Your task to perform on an android device: delete location history Image 0: 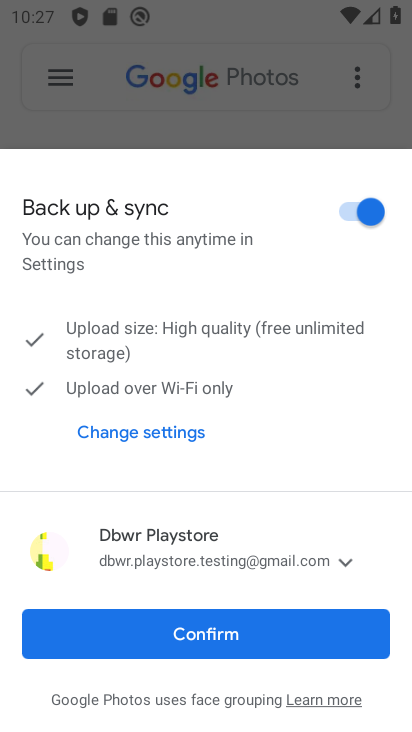
Step 0: press back button
Your task to perform on an android device: delete location history Image 1: 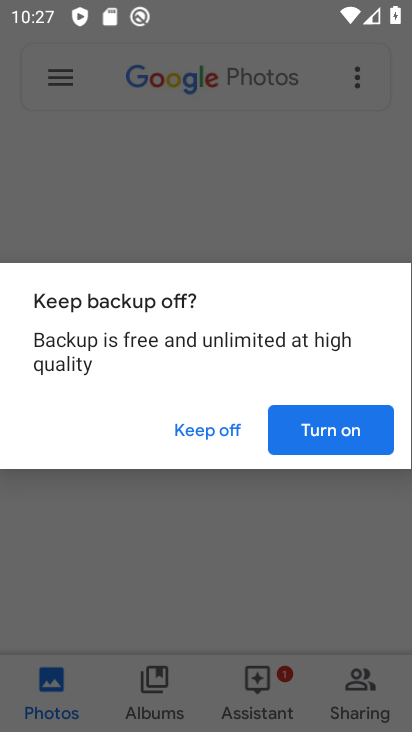
Step 1: press home button
Your task to perform on an android device: delete location history Image 2: 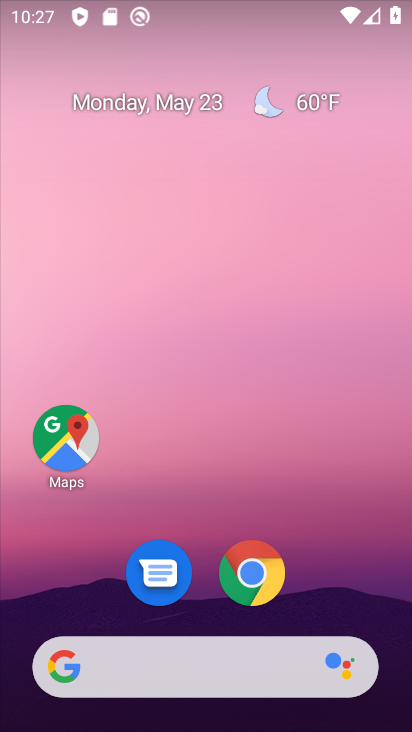
Step 2: drag from (325, 527) to (243, 75)
Your task to perform on an android device: delete location history Image 3: 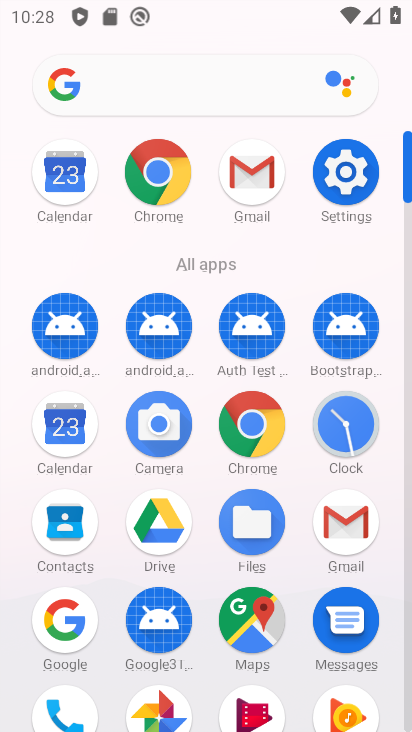
Step 3: drag from (12, 567) to (26, 172)
Your task to perform on an android device: delete location history Image 4: 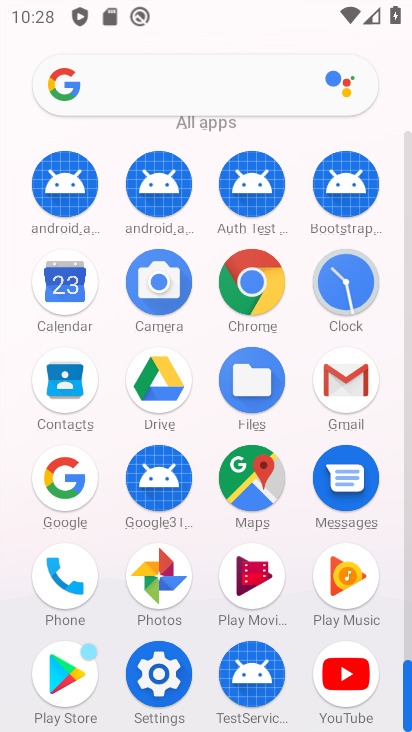
Step 4: drag from (14, 217) to (1, 553)
Your task to perform on an android device: delete location history Image 5: 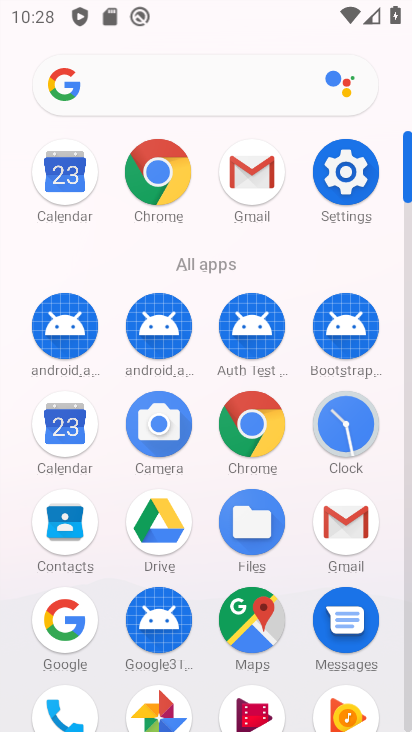
Step 5: drag from (22, 545) to (20, 190)
Your task to perform on an android device: delete location history Image 6: 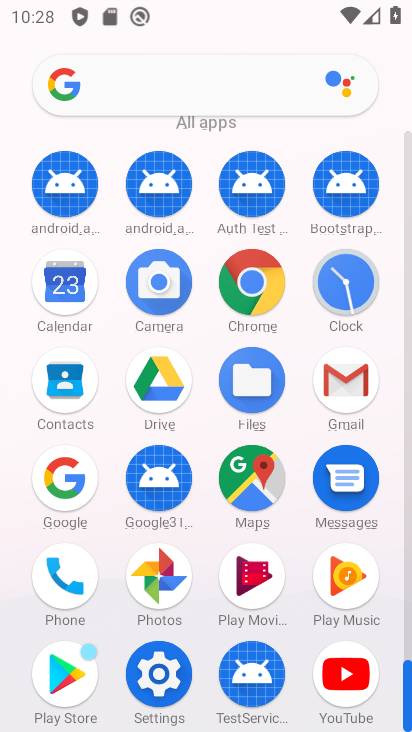
Step 6: click (254, 473)
Your task to perform on an android device: delete location history Image 7: 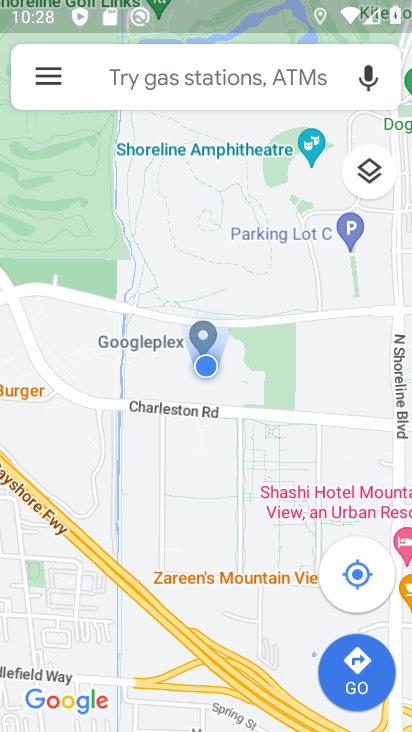
Step 7: click (43, 75)
Your task to perform on an android device: delete location history Image 8: 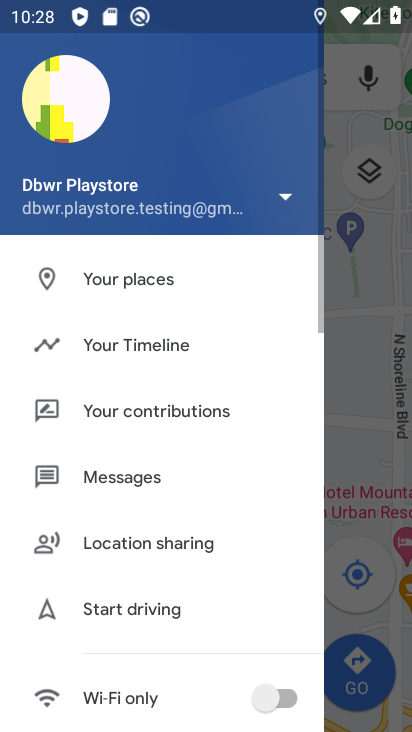
Step 8: drag from (119, 680) to (157, 228)
Your task to perform on an android device: delete location history Image 9: 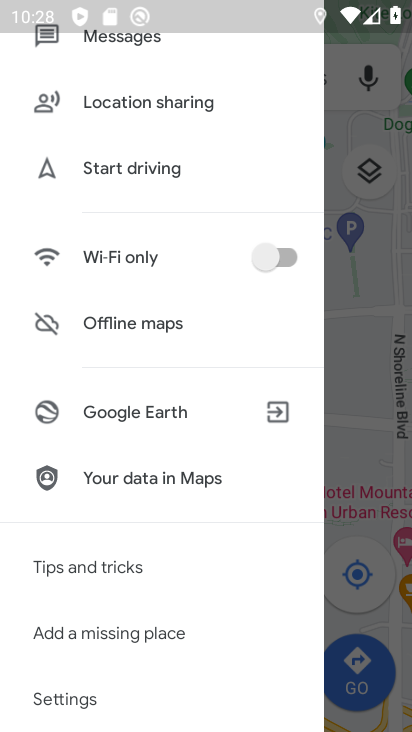
Step 9: click (66, 685)
Your task to perform on an android device: delete location history Image 10: 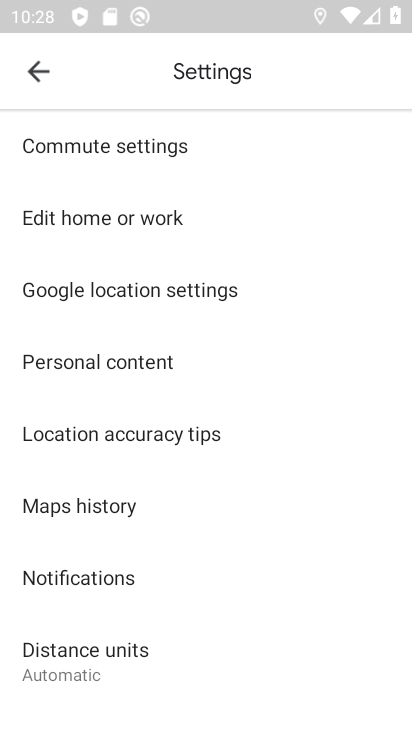
Step 10: click (140, 283)
Your task to perform on an android device: delete location history Image 11: 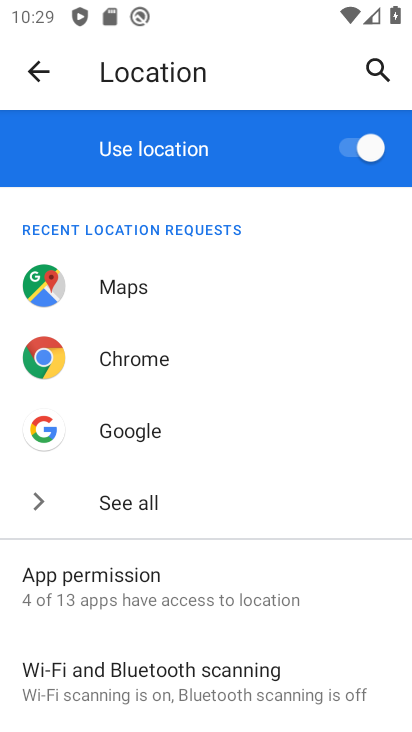
Step 11: drag from (228, 585) to (251, 122)
Your task to perform on an android device: delete location history Image 12: 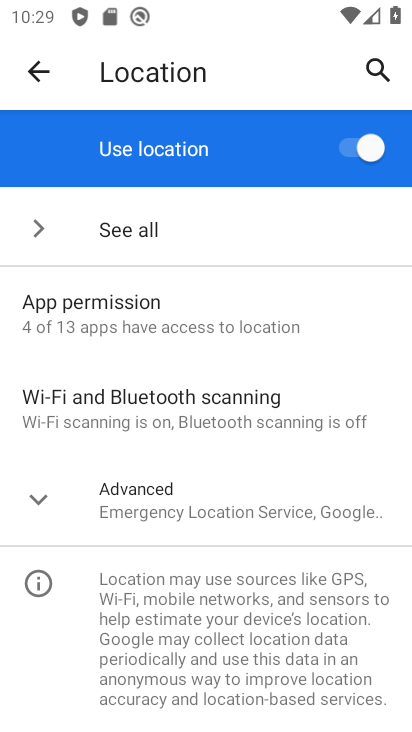
Step 12: drag from (199, 661) to (218, 192)
Your task to perform on an android device: delete location history Image 13: 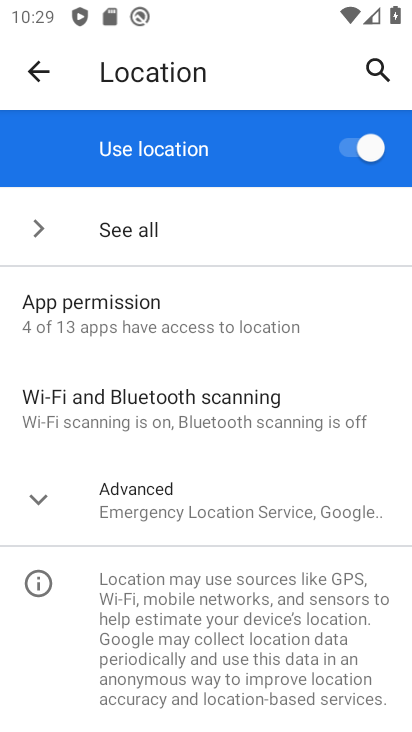
Step 13: click (72, 514)
Your task to perform on an android device: delete location history Image 14: 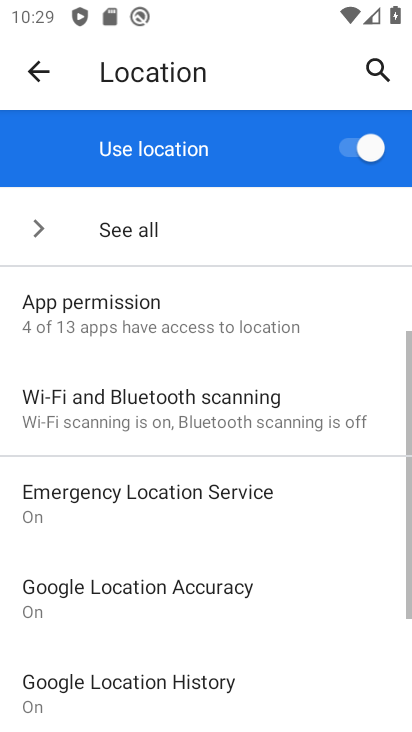
Step 14: drag from (231, 595) to (237, 232)
Your task to perform on an android device: delete location history Image 15: 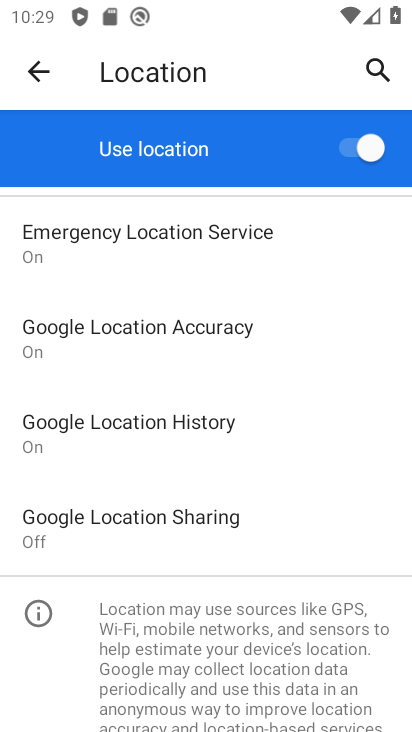
Step 15: drag from (253, 527) to (241, 191)
Your task to perform on an android device: delete location history Image 16: 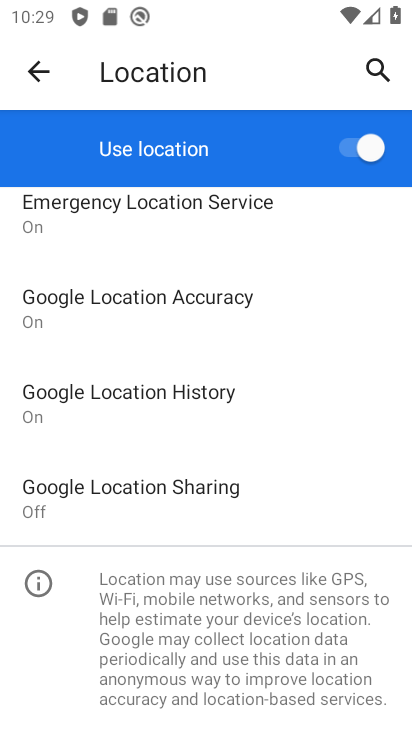
Step 16: click (197, 382)
Your task to perform on an android device: delete location history Image 17: 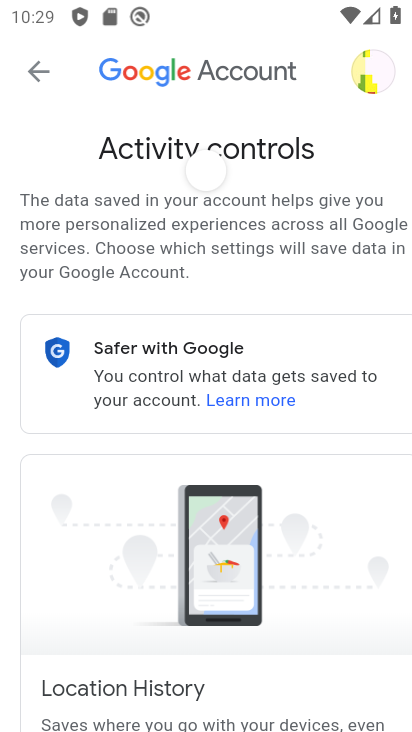
Step 17: drag from (171, 619) to (169, 225)
Your task to perform on an android device: delete location history Image 18: 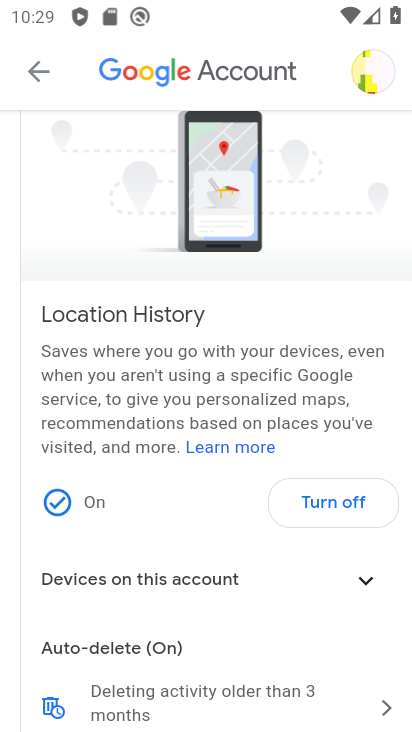
Step 18: drag from (105, 568) to (131, 212)
Your task to perform on an android device: delete location history Image 19: 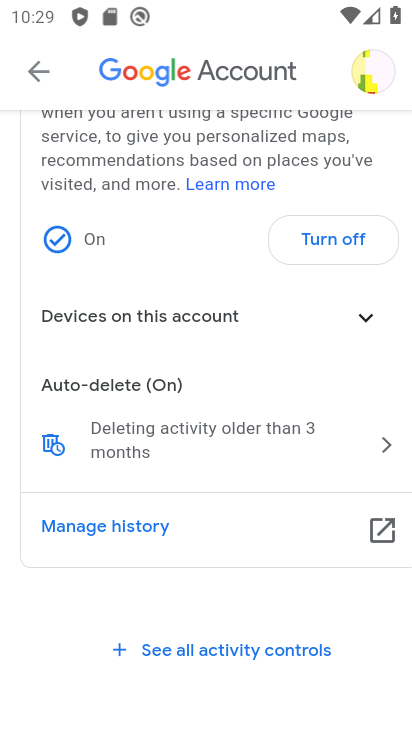
Step 19: click (122, 436)
Your task to perform on an android device: delete location history Image 20: 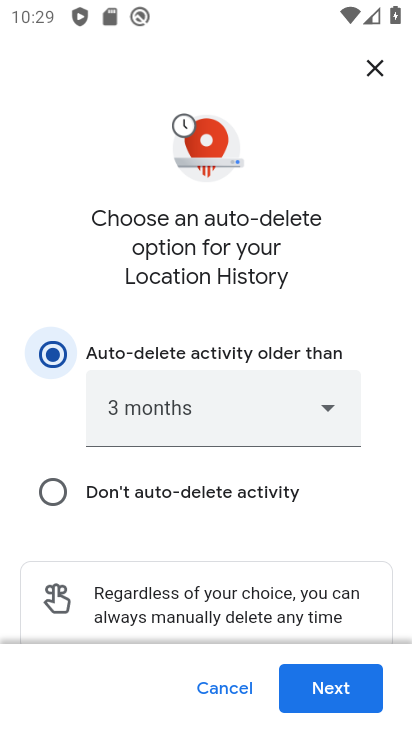
Step 20: click (308, 682)
Your task to perform on an android device: delete location history Image 21: 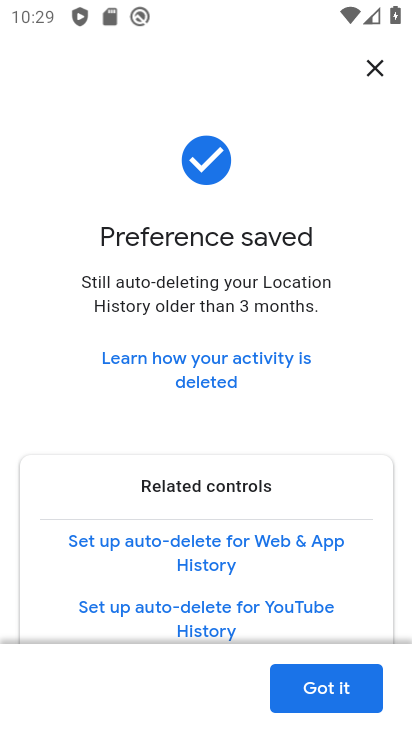
Step 21: task complete